Your task to perform on an android device: Open Google Chrome Image 0: 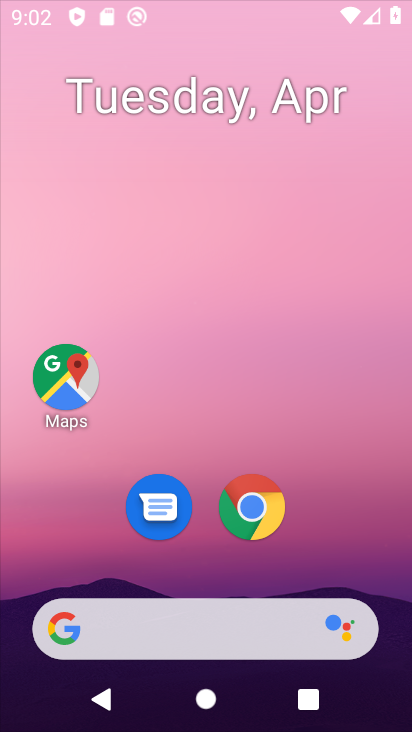
Step 0: click (298, 62)
Your task to perform on an android device: Open Google Chrome Image 1: 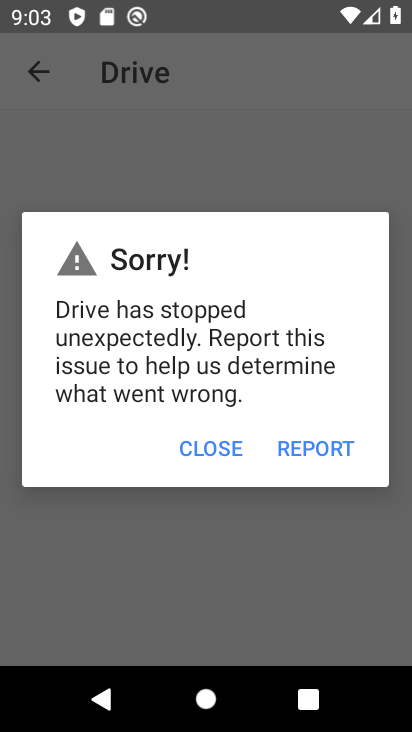
Step 1: press home button
Your task to perform on an android device: Open Google Chrome Image 2: 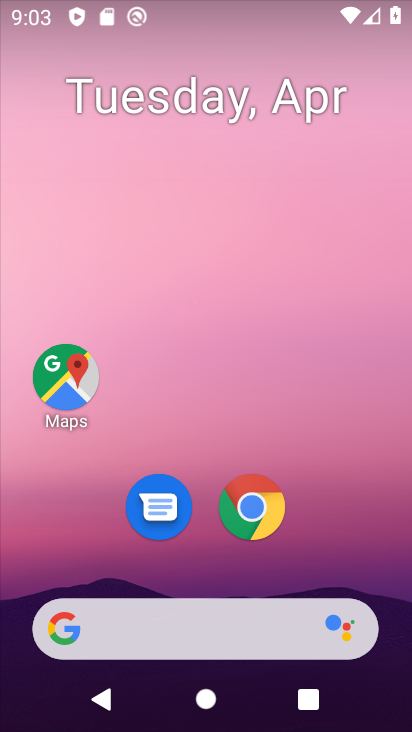
Step 2: drag from (323, 486) to (339, 170)
Your task to perform on an android device: Open Google Chrome Image 3: 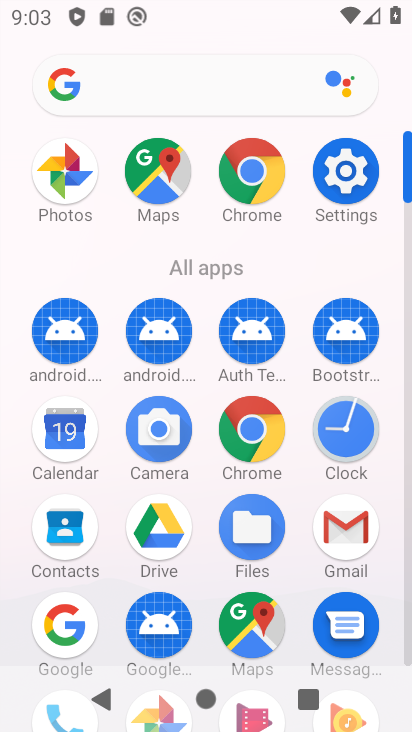
Step 3: click (241, 426)
Your task to perform on an android device: Open Google Chrome Image 4: 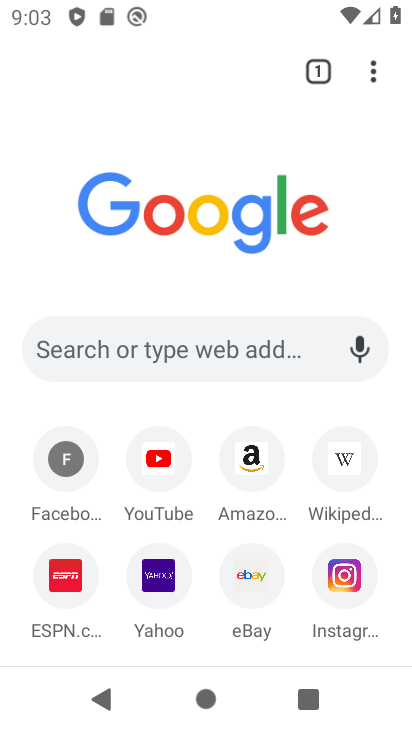
Step 4: task complete